Your task to perform on an android device: turn on airplane mode Image 0: 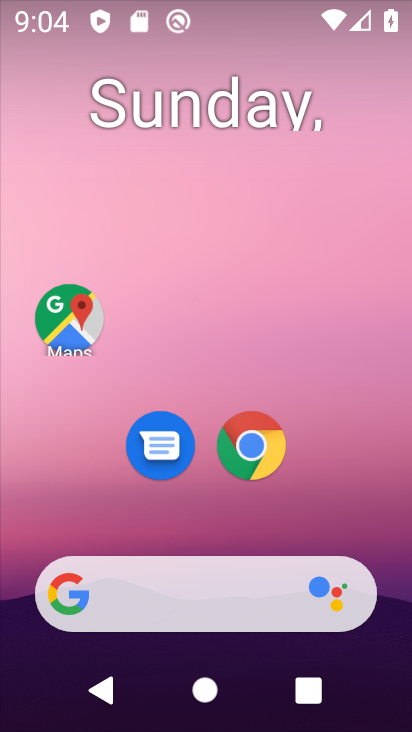
Step 0: drag from (267, 567) to (232, 60)
Your task to perform on an android device: turn on airplane mode Image 1: 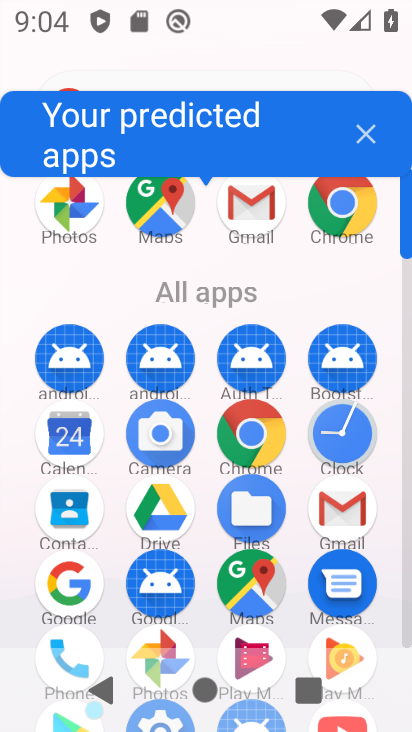
Step 1: drag from (209, 546) to (195, 53)
Your task to perform on an android device: turn on airplane mode Image 2: 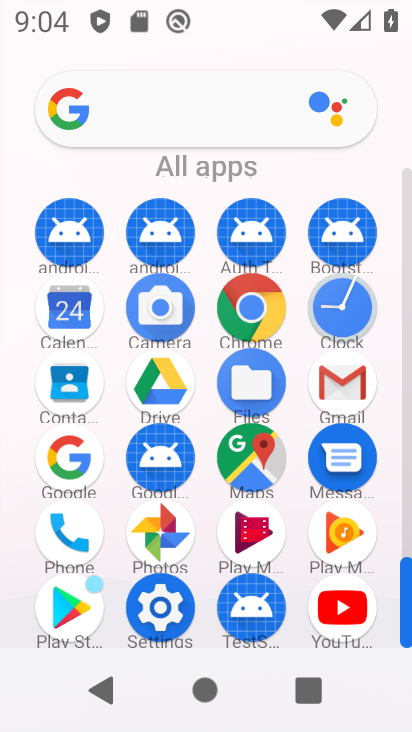
Step 2: click (149, 590)
Your task to perform on an android device: turn on airplane mode Image 3: 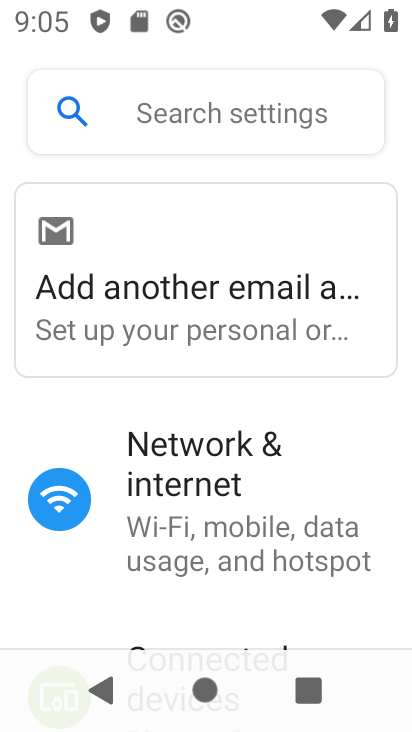
Step 3: click (202, 556)
Your task to perform on an android device: turn on airplane mode Image 4: 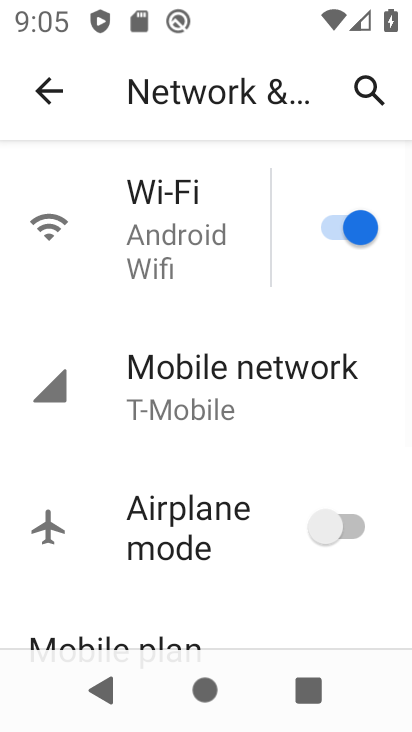
Step 4: click (319, 546)
Your task to perform on an android device: turn on airplane mode Image 5: 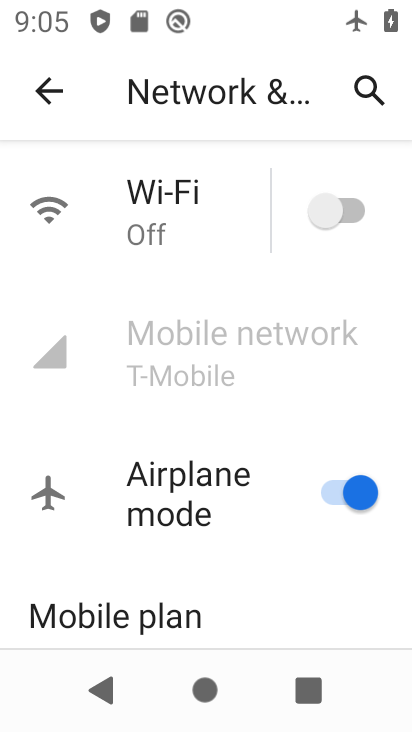
Step 5: task complete